Your task to perform on an android device: Do I have any events this weekend? Image 0: 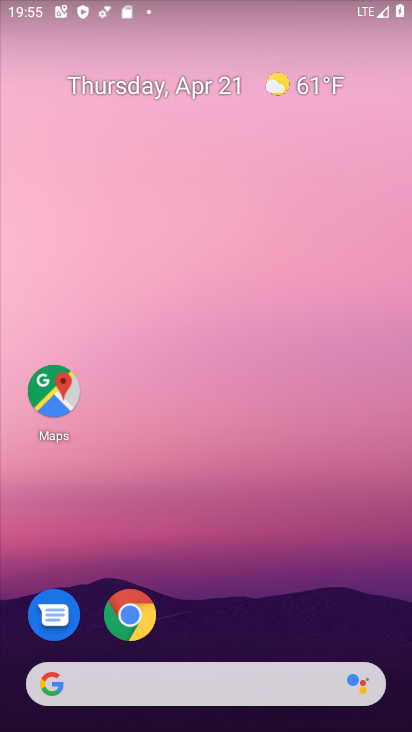
Step 0: click (281, 158)
Your task to perform on an android device: Do I have any events this weekend? Image 1: 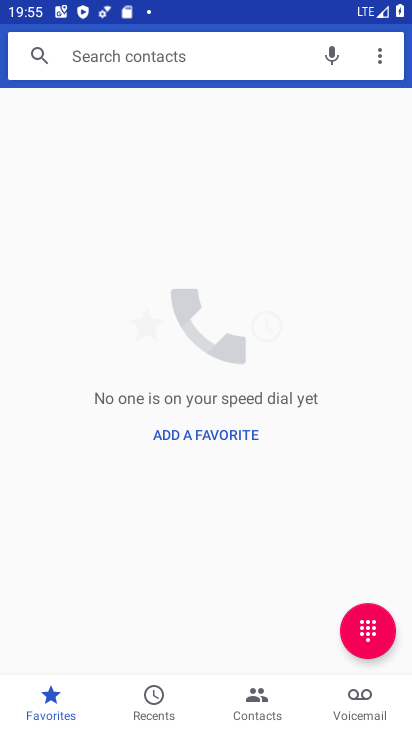
Step 1: press home button
Your task to perform on an android device: Do I have any events this weekend? Image 2: 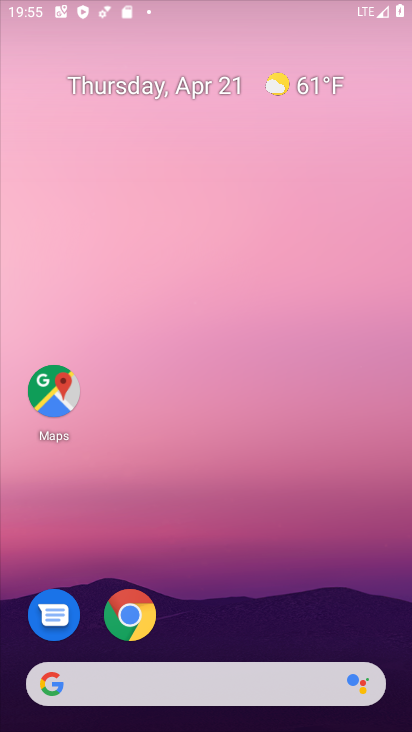
Step 2: drag from (174, 644) to (317, 5)
Your task to perform on an android device: Do I have any events this weekend? Image 3: 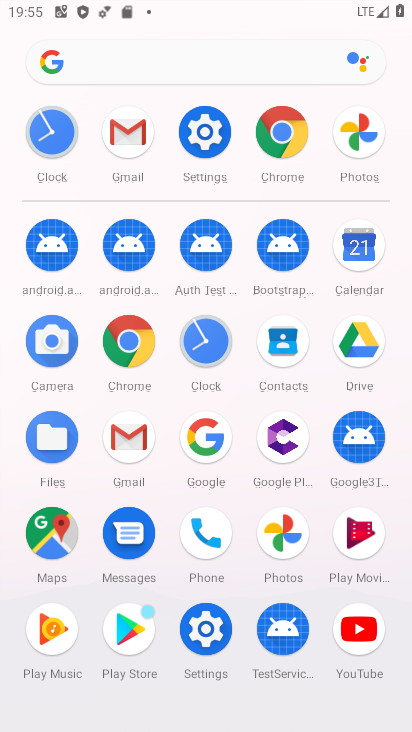
Step 3: click (360, 240)
Your task to perform on an android device: Do I have any events this weekend? Image 4: 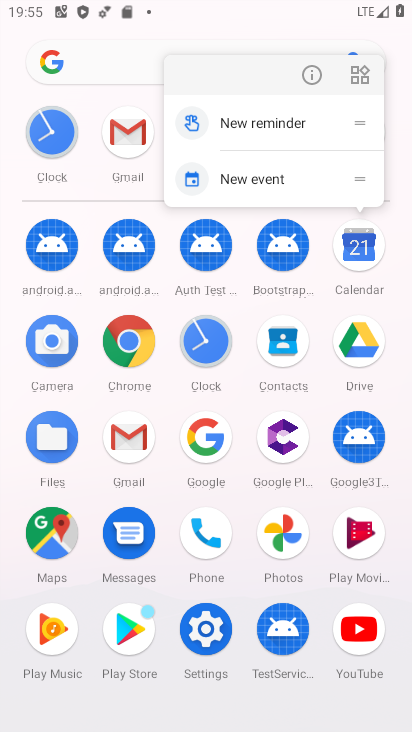
Step 4: click (309, 70)
Your task to perform on an android device: Do I have any events this weekend? Image 5: 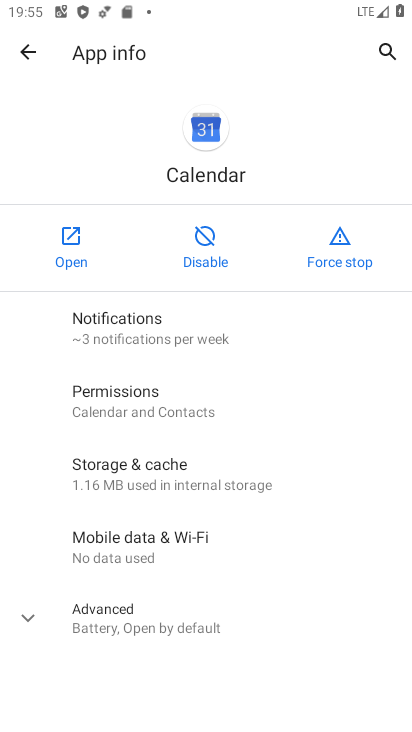
Step 5: click (69, 245)
Your task to perform on an android device: Do I have any events this weekend? Image 6: 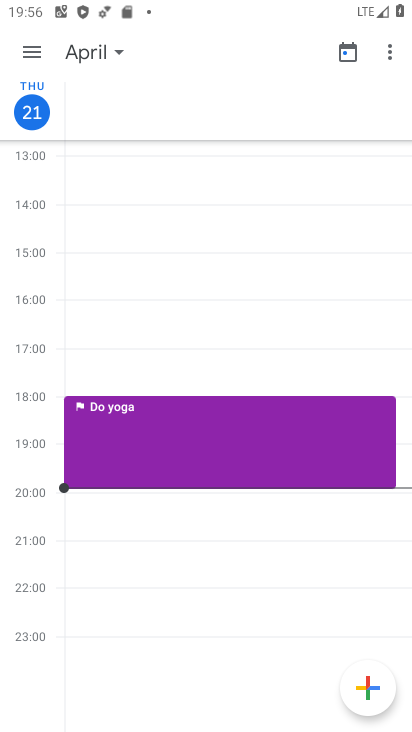
Step 6: click (89, 45)
Your task to perform on an android device: Do I have any events this weekend? Image 7: 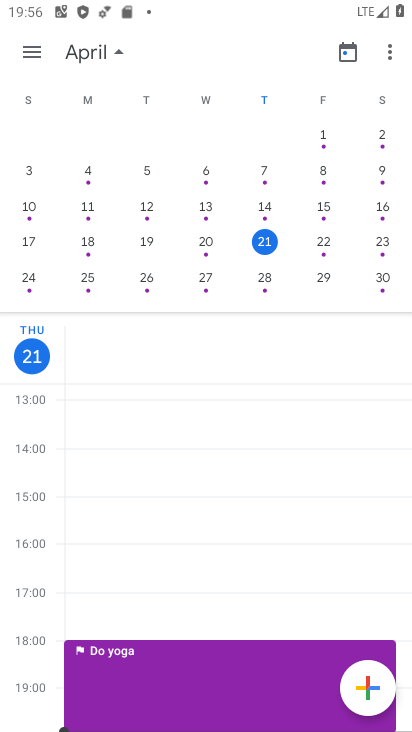
Step 7: click (92, 49)
Your task to perform on an android device: Do I have any events this weekend? Image 8: 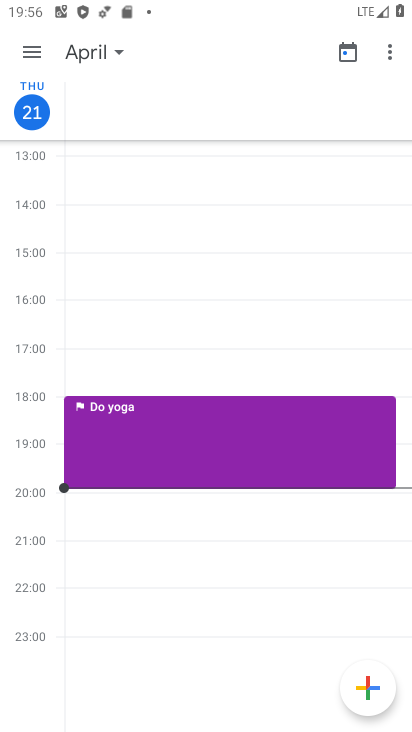
Step 8: task complete